Your task to perform on an android device: turn off data saver in the chrome app Image 0: 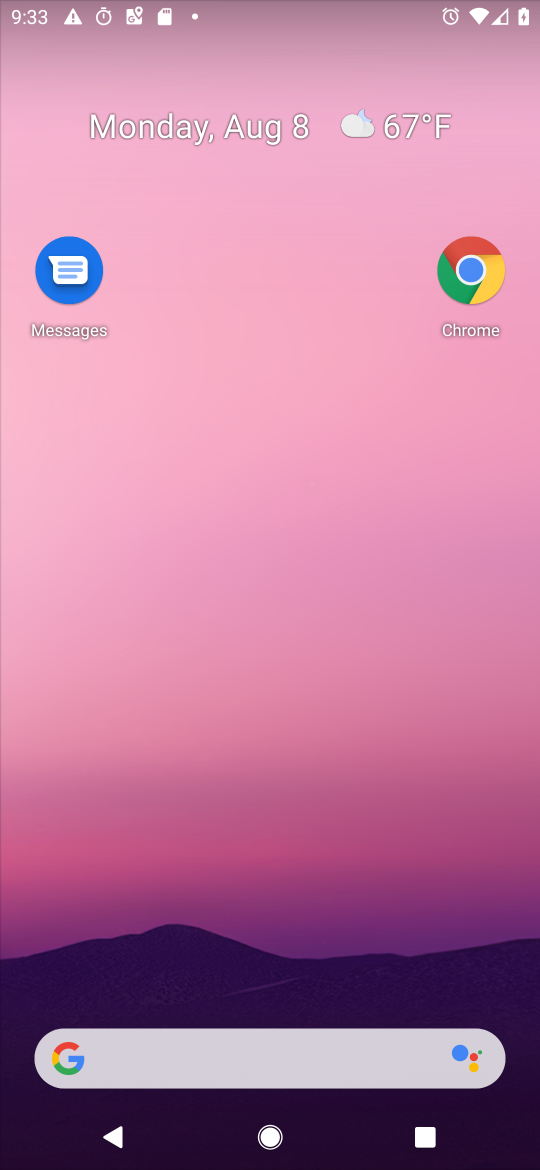
Step 0: drag from (256, 941) to (206, 193)
Your task to perform on an android device: turn off data saver in the chrome app Image 1: 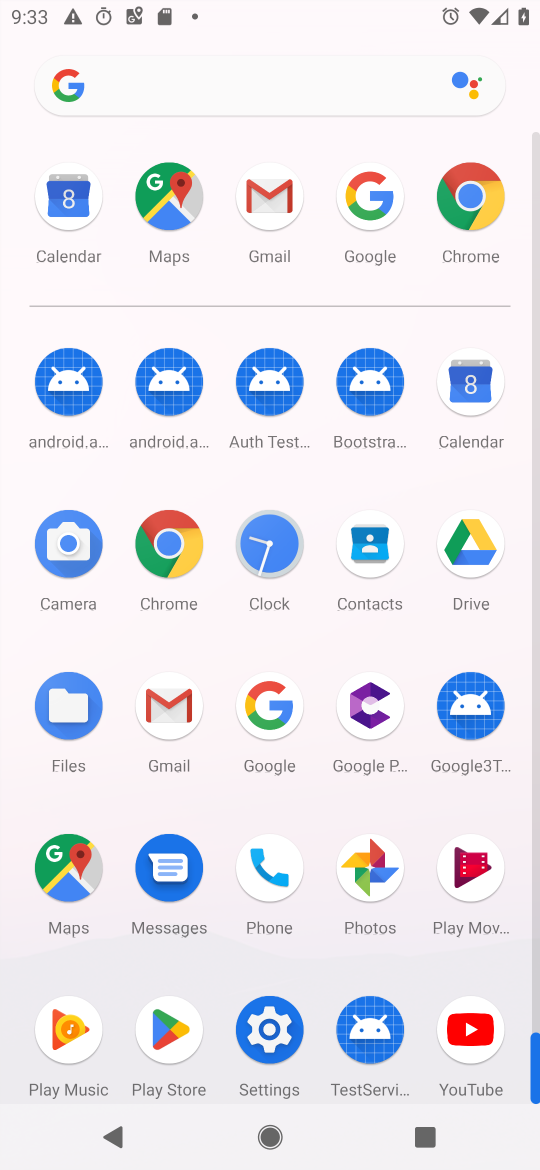
Step 1: drag from (236, 510) to (278, 183)
Your task to perform on an android device: turn off data saver in the chrome app Image 2: 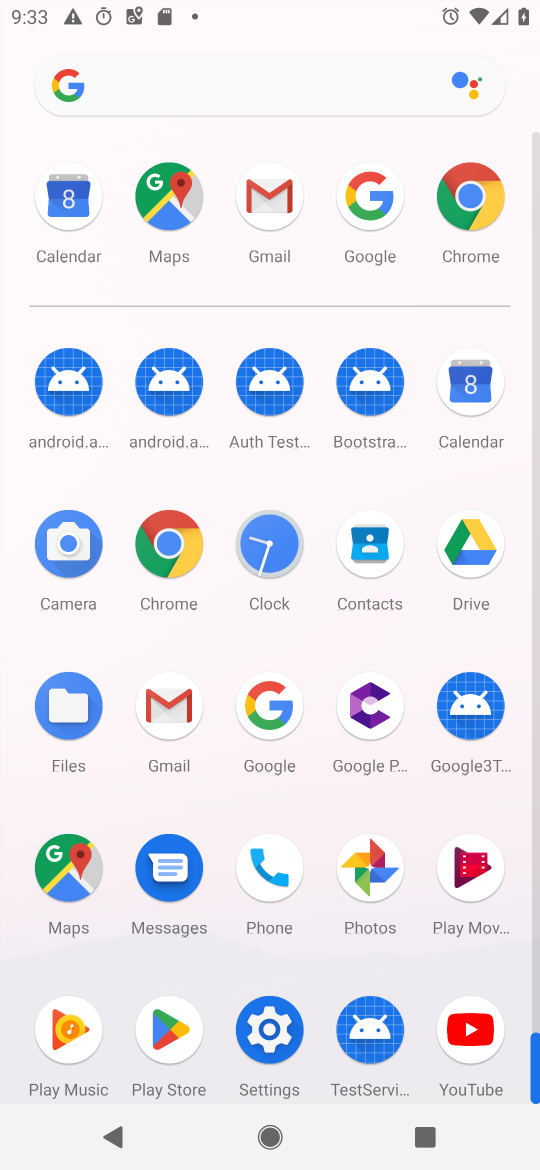
Step 2: click (463, 191)
Your task to perform on an android device: turn off data saver in the chrome app Image 3: 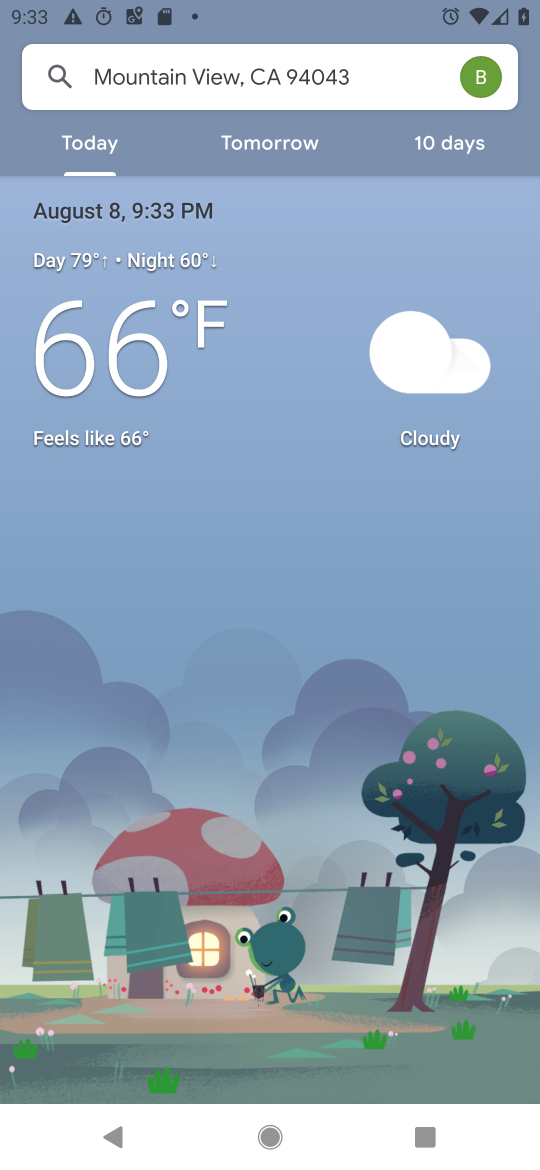
Step 3: press home button
Your task to perform on an android device: turn off data saver in the chrome app Image 4: 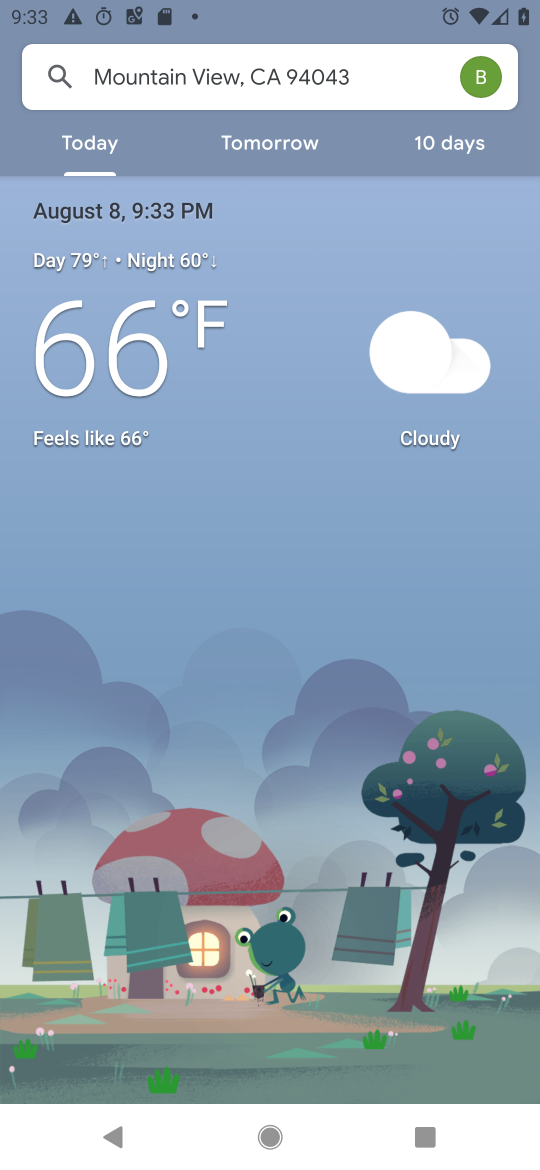
Step 4: press home button
Your task to perform on an android device: turn off data saver in the chrome app Image 5: 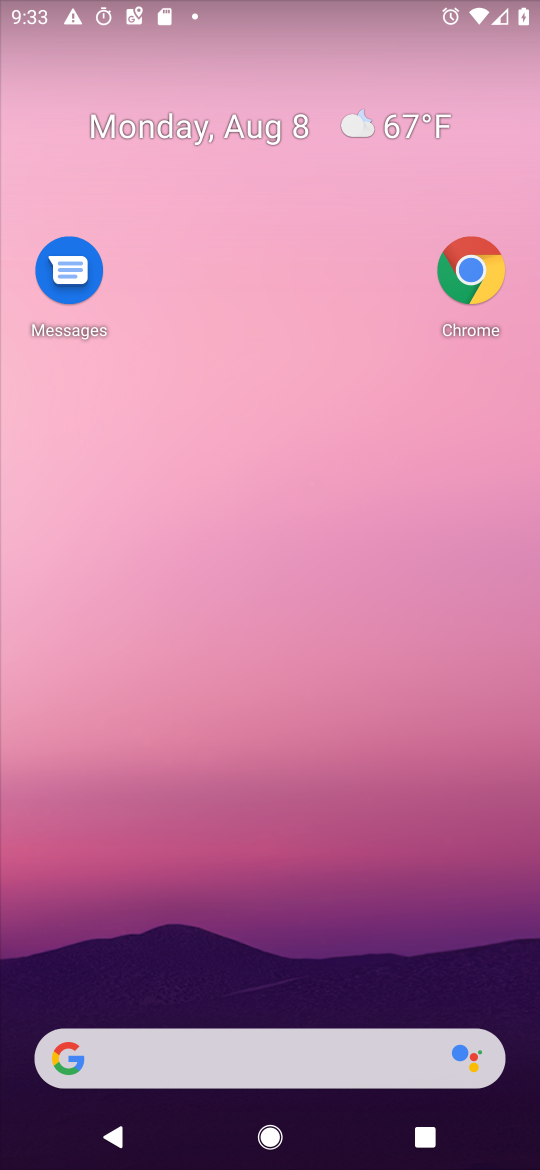
Step 5: drag from (281, 891) to (288, 574)
Your task to perform on an android device: turn off data saver in the chrome app Image 6: 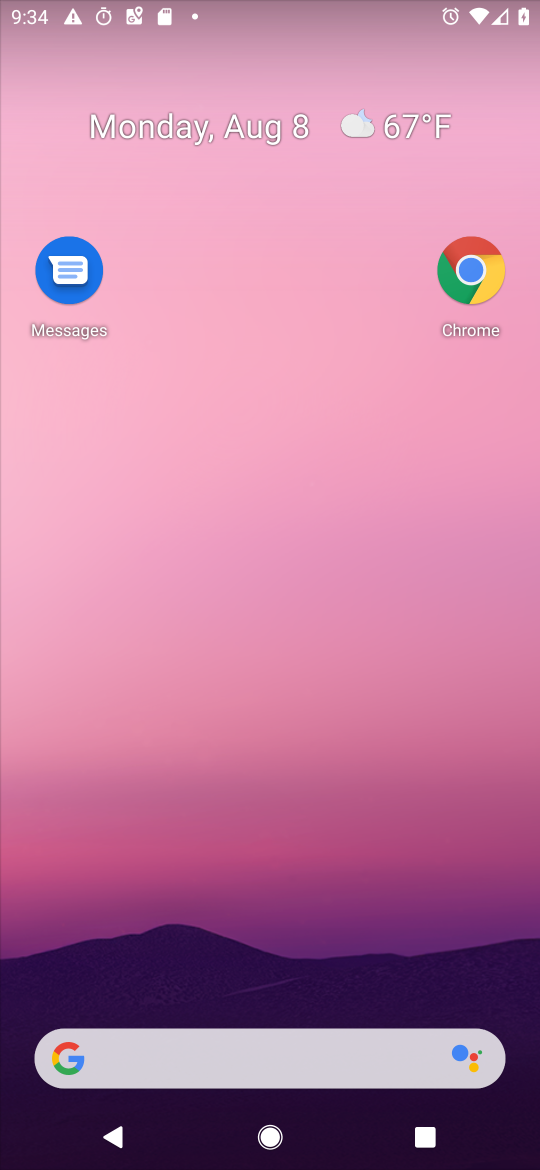
Step 6: drag from (372, 902) to (444, 203)
Your task to perform on an android device: turn off data saver in the chrome app Image 7: 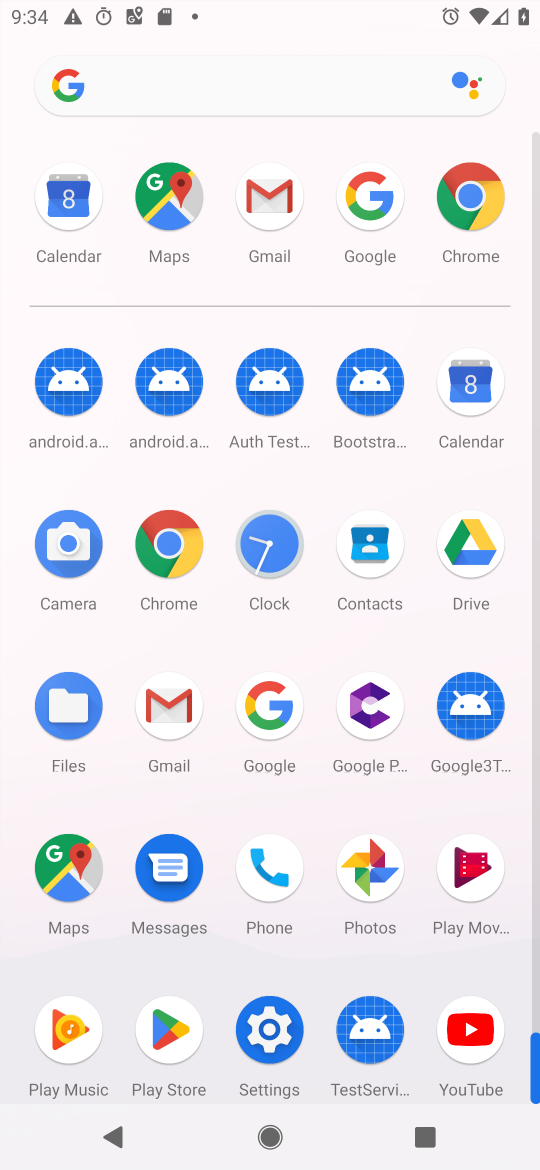
Step 7: click (468, 197)
Your task to perform on an android device: turn off data saver in the chrome app Image 8: 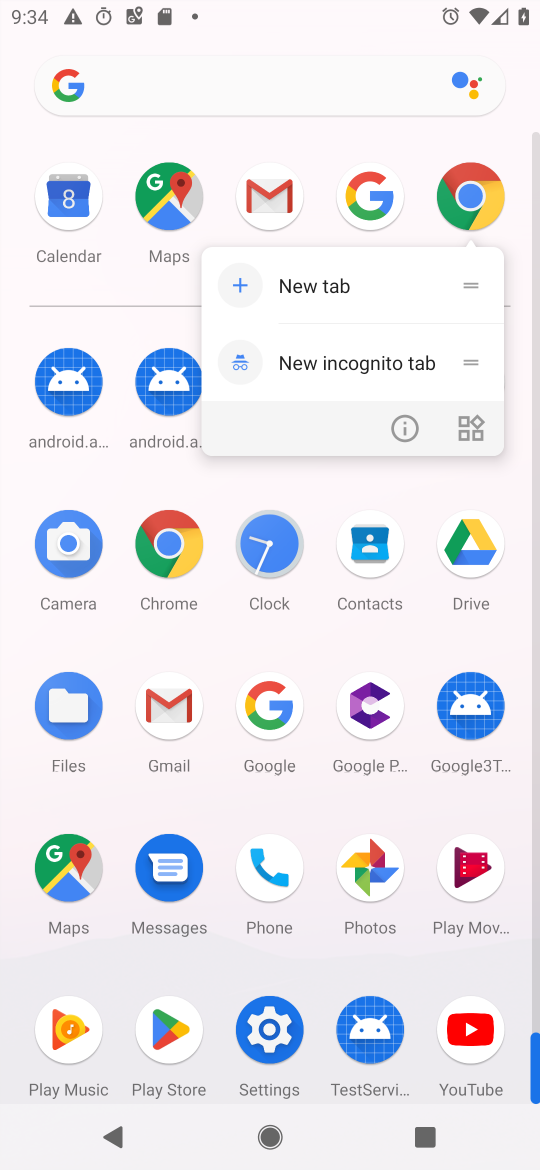
Step 8: click (410, 439)
Your task to perform on an android device: turn off data saver in the chrome app Image 9: 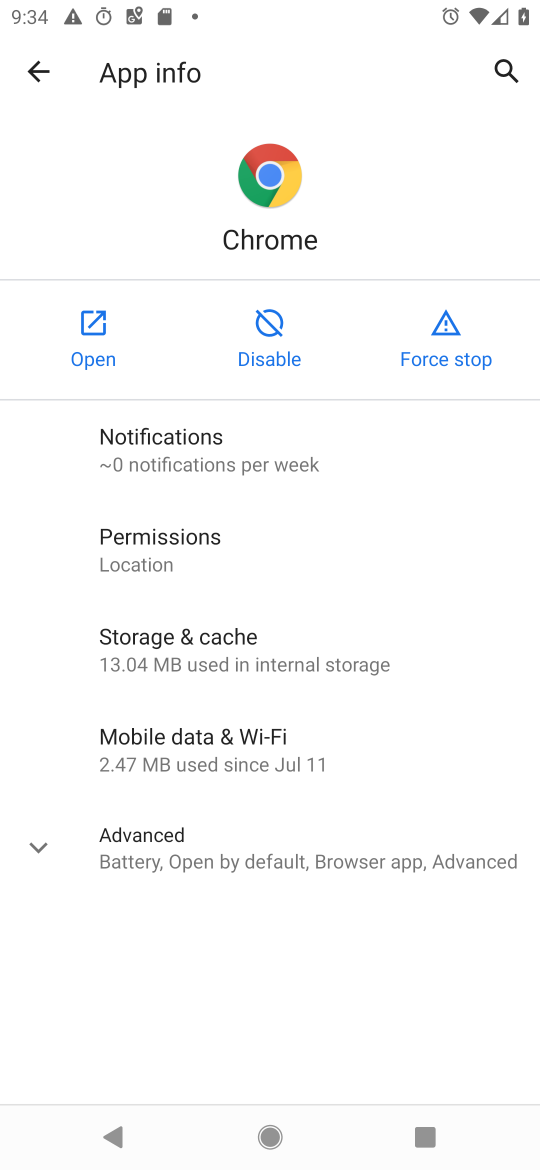
Step 9: click (96, 339)
Your task to perform on an android device: turn off data saver in the chrome app Image 10: 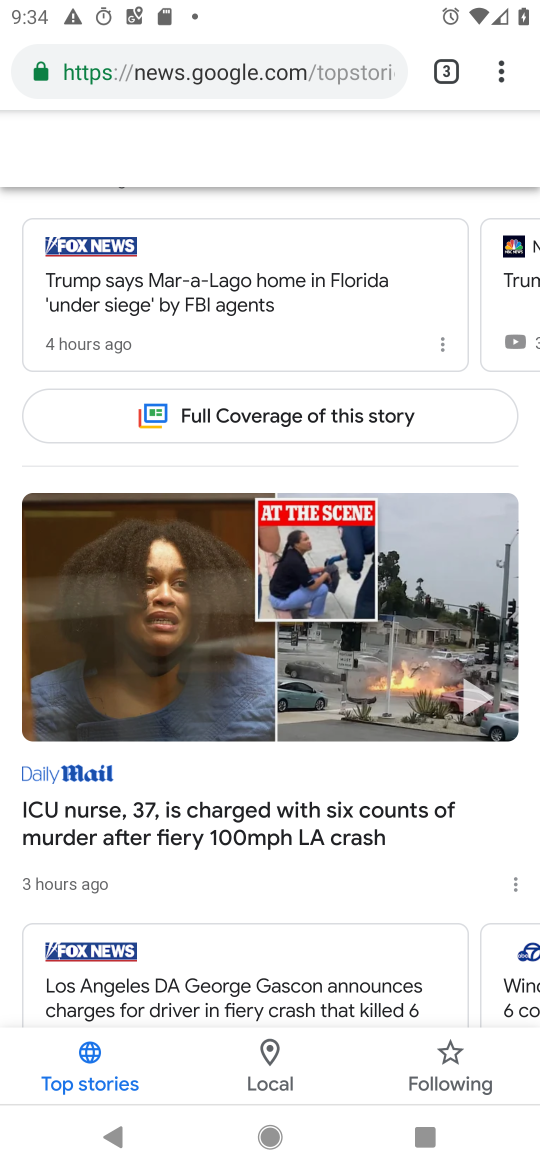
Step 10: click (504, 63)
Your task to perform on an android device: turn off data saver in the chrome app Image 11: 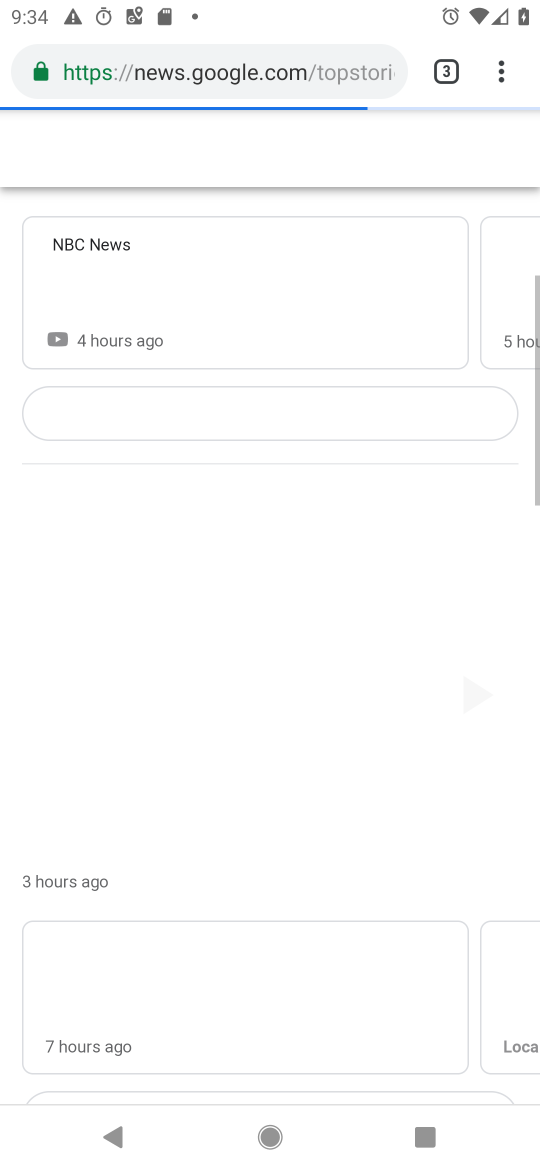
Step 11: drag from (510, 58) to (281, 859)
Your task to perform on an android device: turn off data saver in the chrome app Image 12: 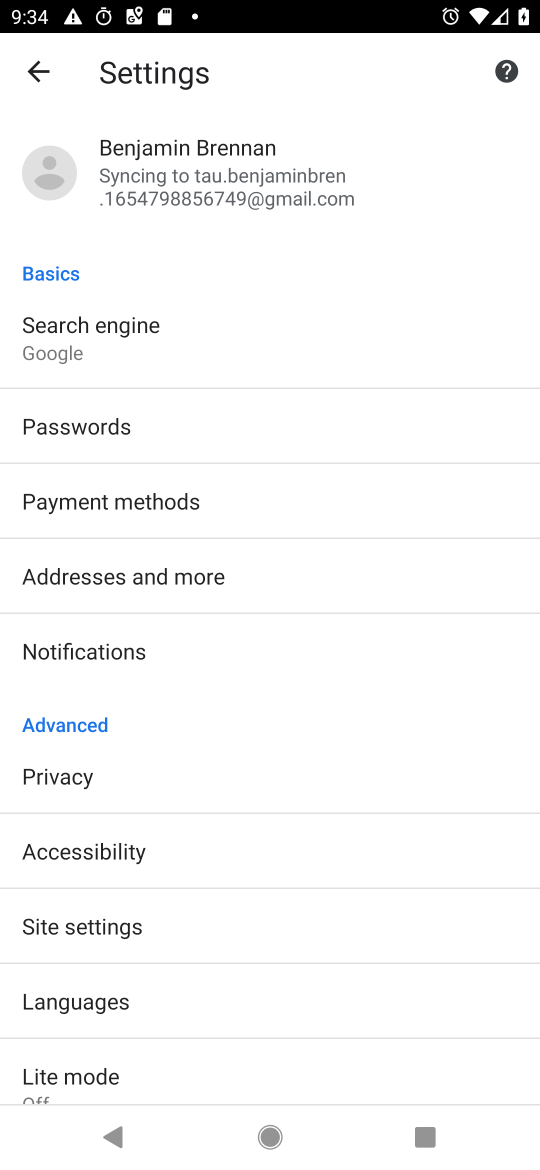
Step 12: drag from (249, 1070) to (454, 302)
Your task to perform on an android device: turn off data saver in the chrome app Image 13: 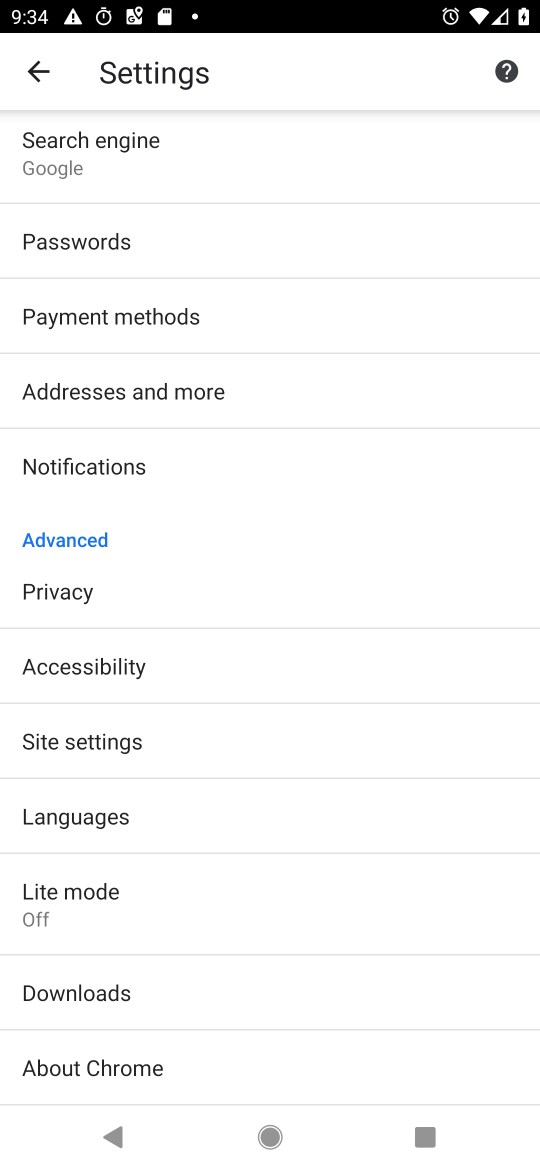
Step 13: click (123, 892)
Your task to perform on an android device: turn off data saver in the chrome app Image 14: 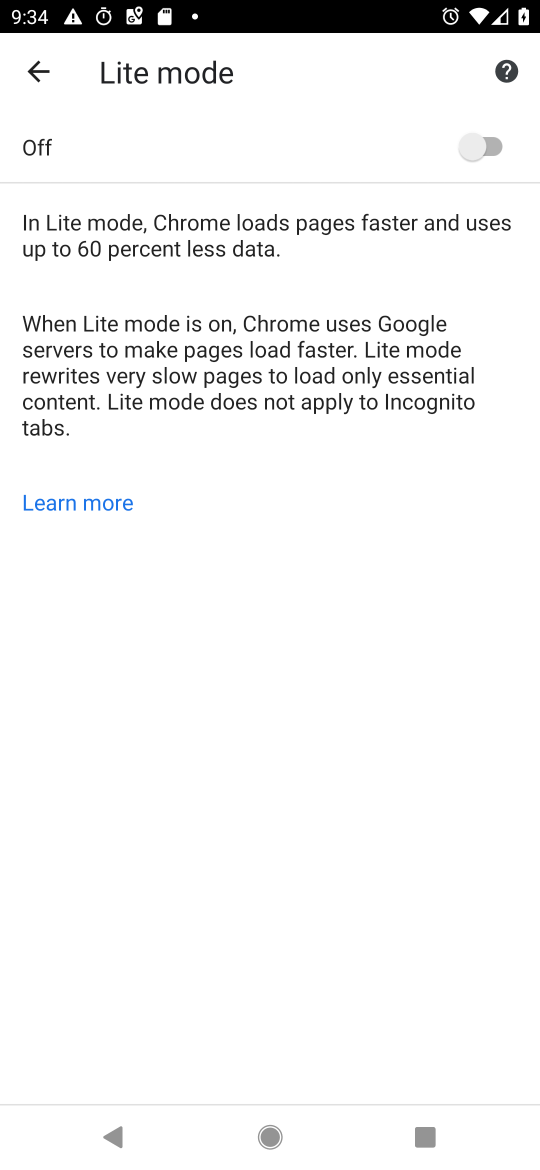
Step 14: task complete